Your task to perform on an android device: turn on translation in the chrome app Image 0: 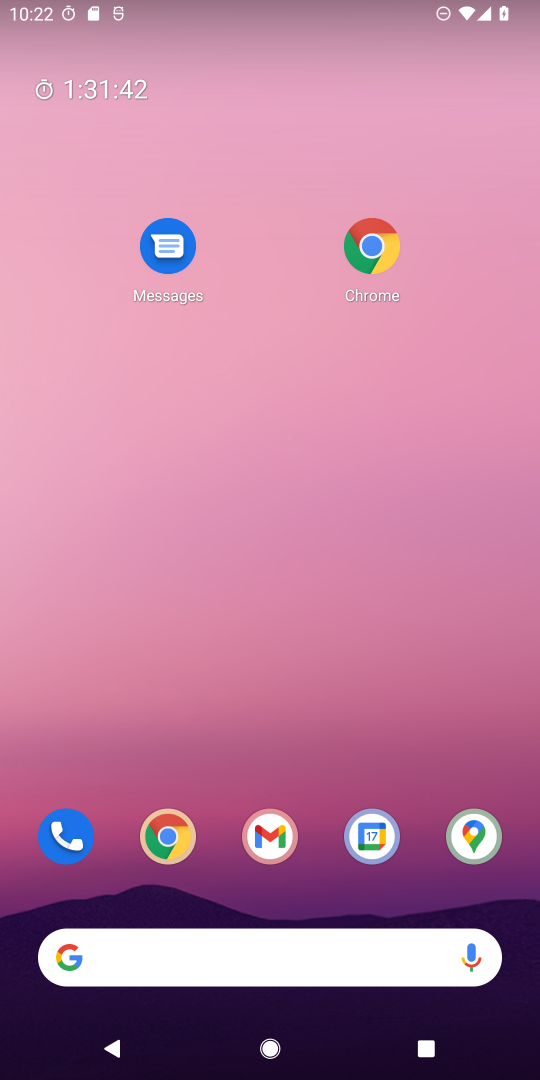
Step 0: drag from (250, 896) to (260, 270)
Your task to perform on an android device: turn on translation in the chrome app Image 1: 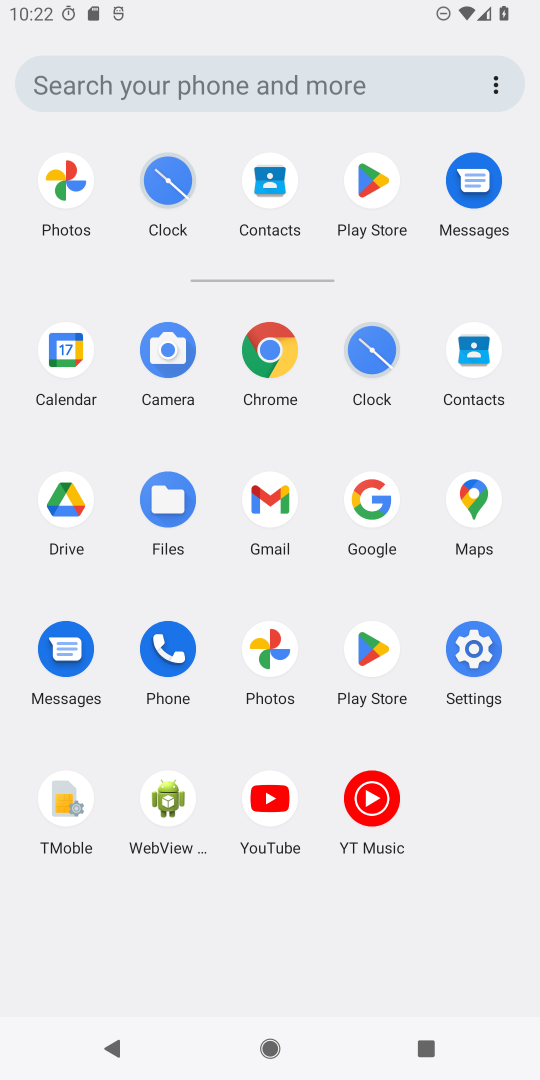
Step 1: click (278, 332)
Your task to perform on an android device: turn on translation in the chrome app Image 2: 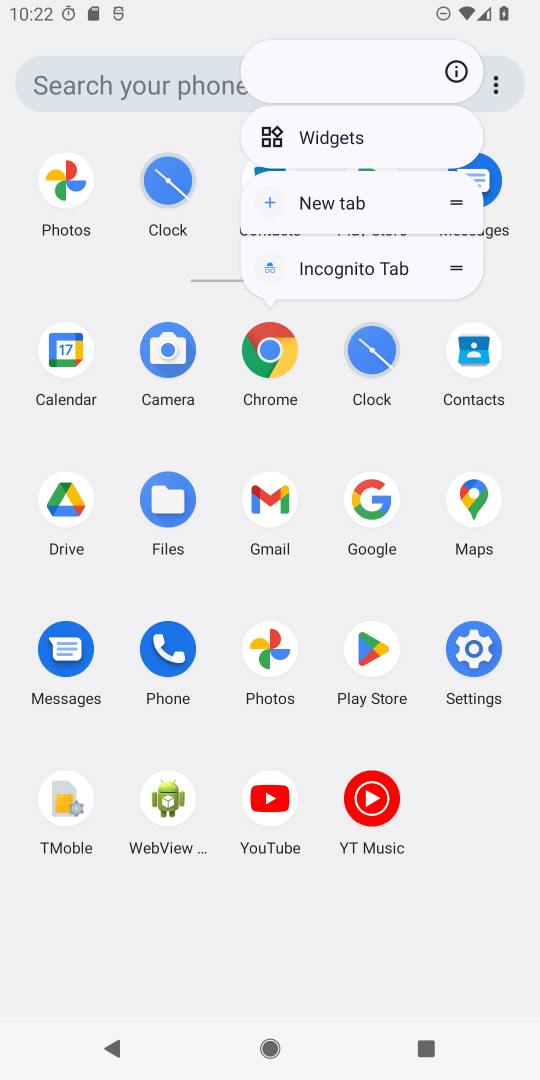
Step 2: click (253, 358)
Your task to perform on an android device: turn on translation in the chrome app Image 3: 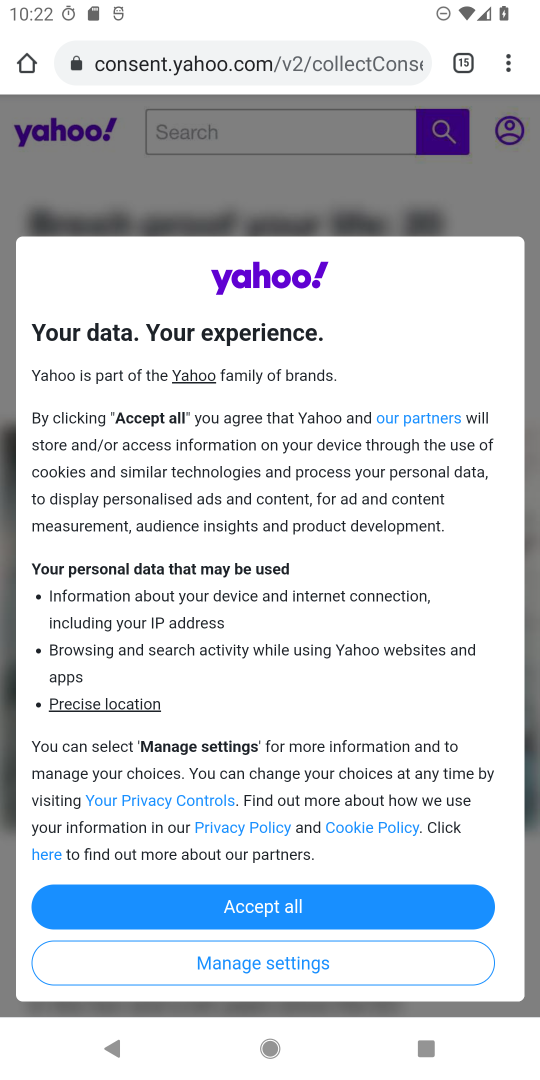
Step 3: click (519, 61)
Your task to perform on an android device: turn on translation in the chrome app Image 4: 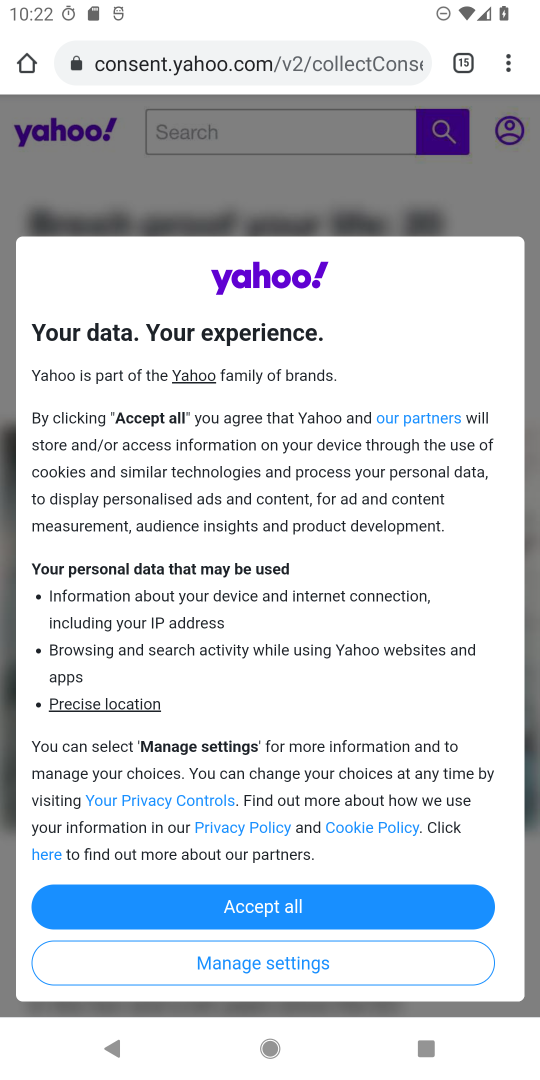
Step 4: click (519, 61)
Your task to perform on an android device: turn on translation in the chrome app Image 5: 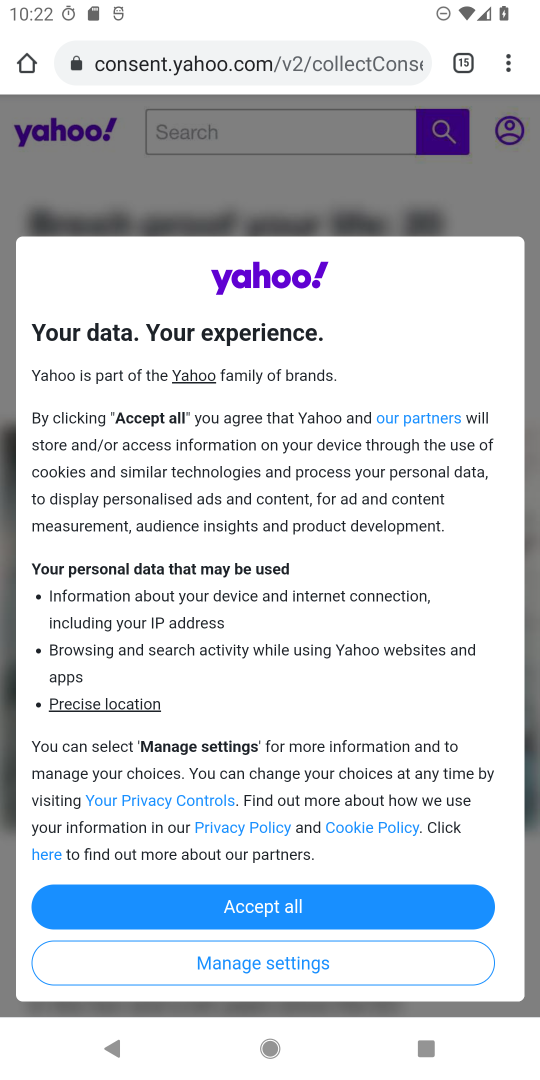
Step 5: click (516, 61)
Your task to perform on an android device: turn on translation in the chrome app Image 6: 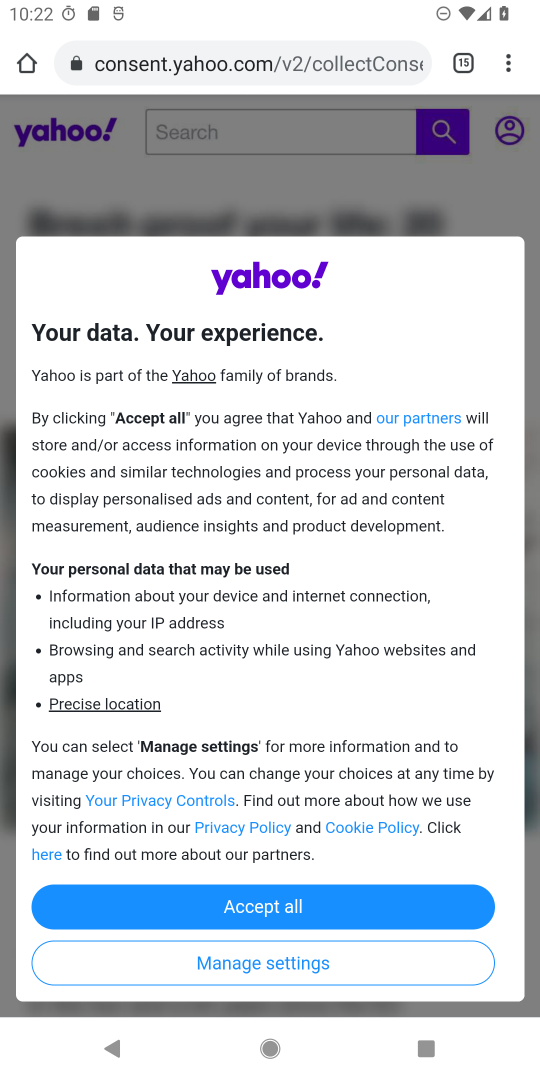
Step 6: click (513, 61)
Your task to perform on an android device: turn on translation in the chrome app Image 7: 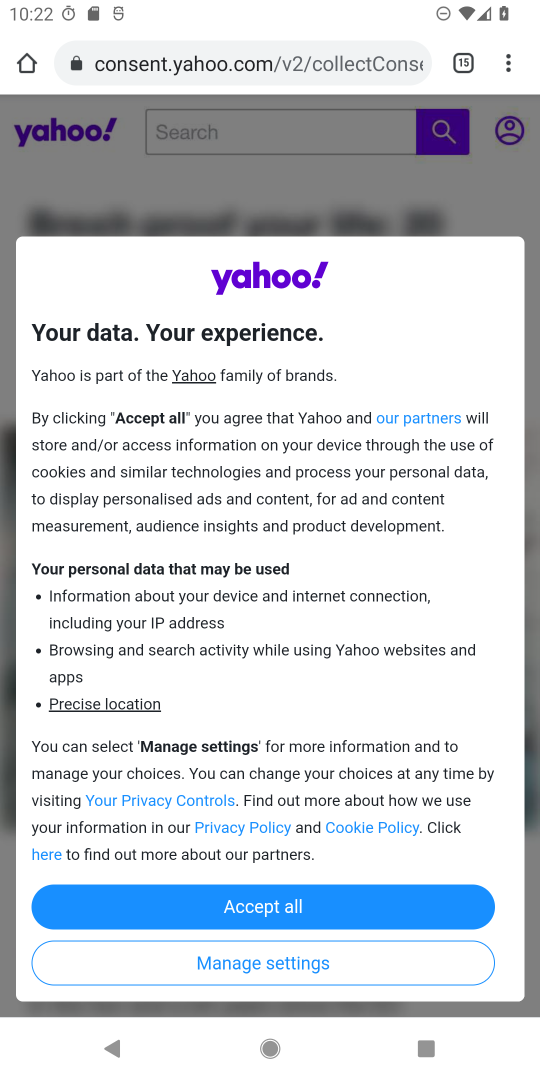
Step 7: click (513, 61)
Your task to perform on an android device: turn on translation in the chrome app Image 8: 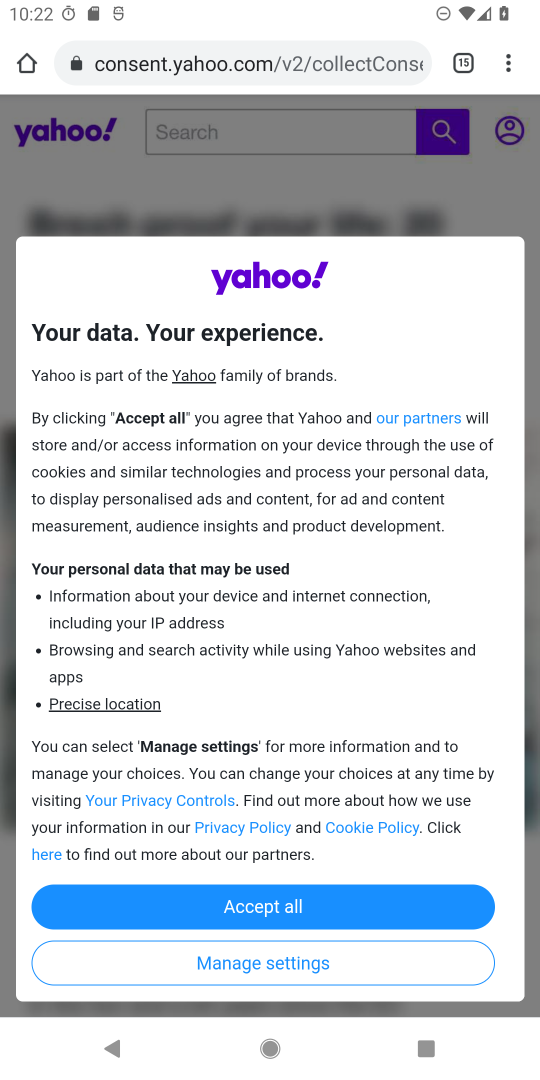
Step 8: click (508, 63)
Your task to perform on an android device: turn on translation in the chrome app Image 9: 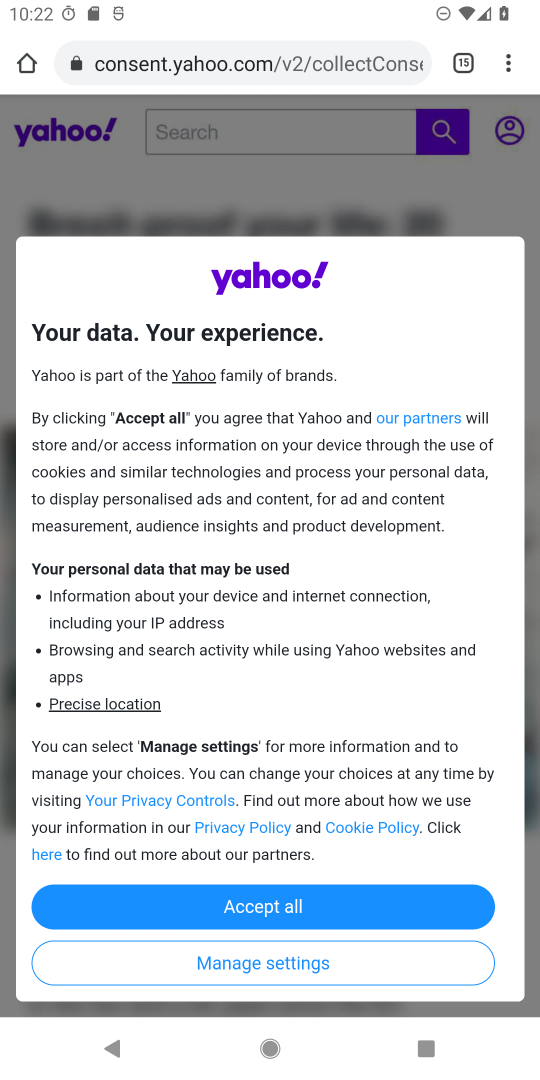
Step 9: click (508, 63)
Your task to perform on an android device: turn on translation in the chrome app Image 10: 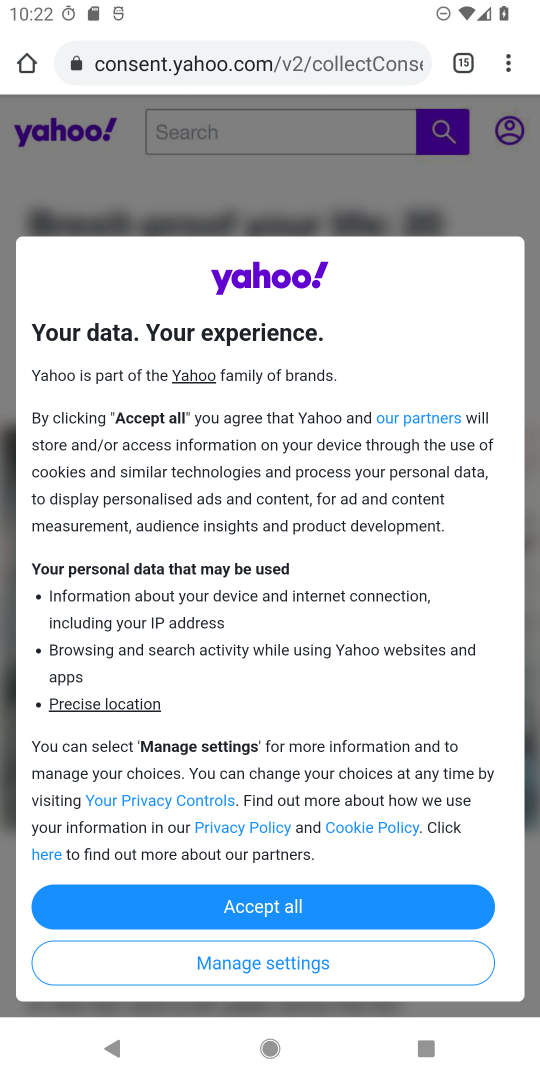
Step 10: click (508, 63)
Your task to perform on an android device: turn on translation in the chrome app Image 11: 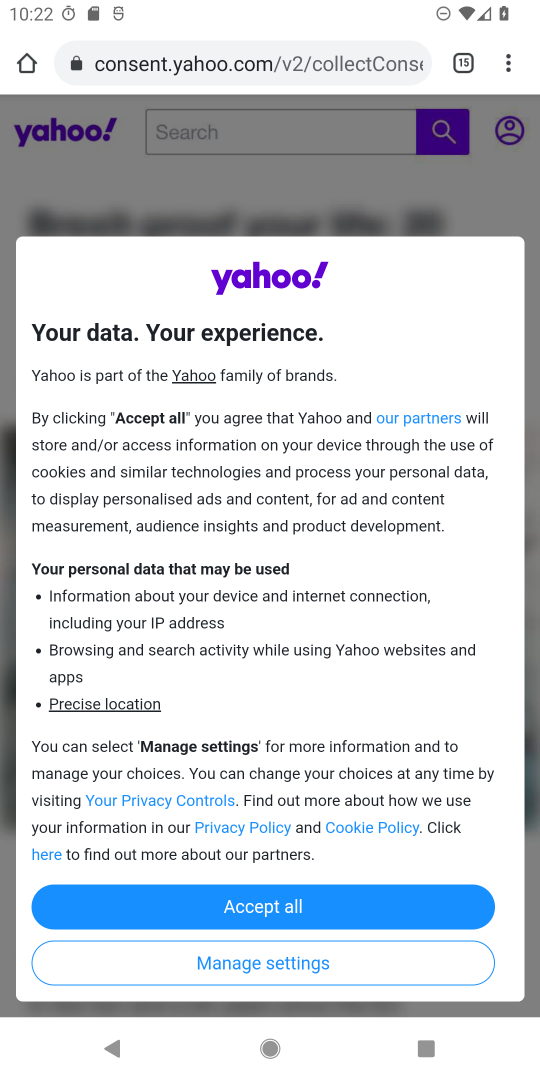
Step 11: click (508, 63)
Your task to perform on an android device: turn on translation in the chrome app Image 12: 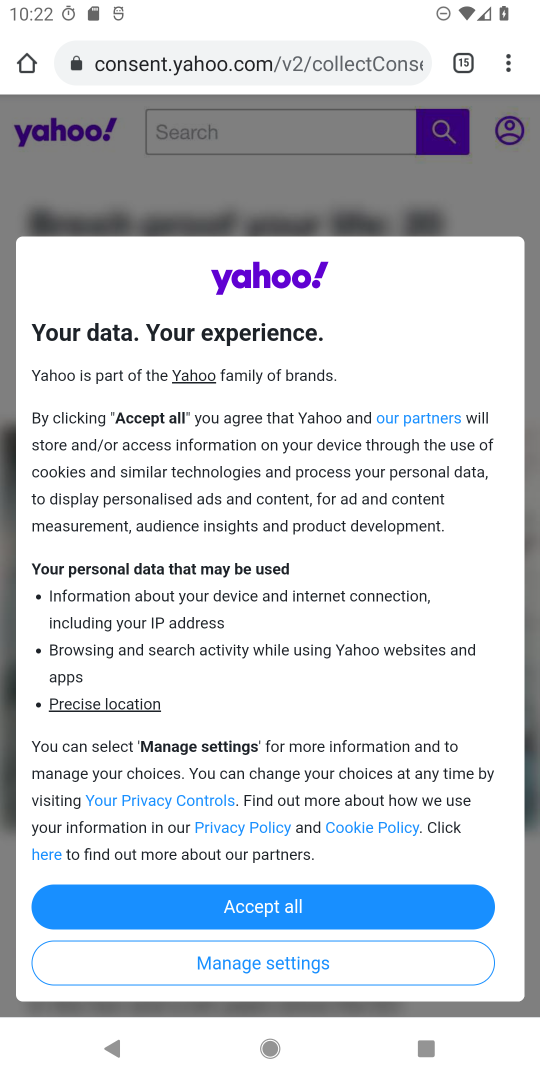
Step 12: click (508, 63)
Your task to perform on an android device: turn on translation in the chrome app Image 13: 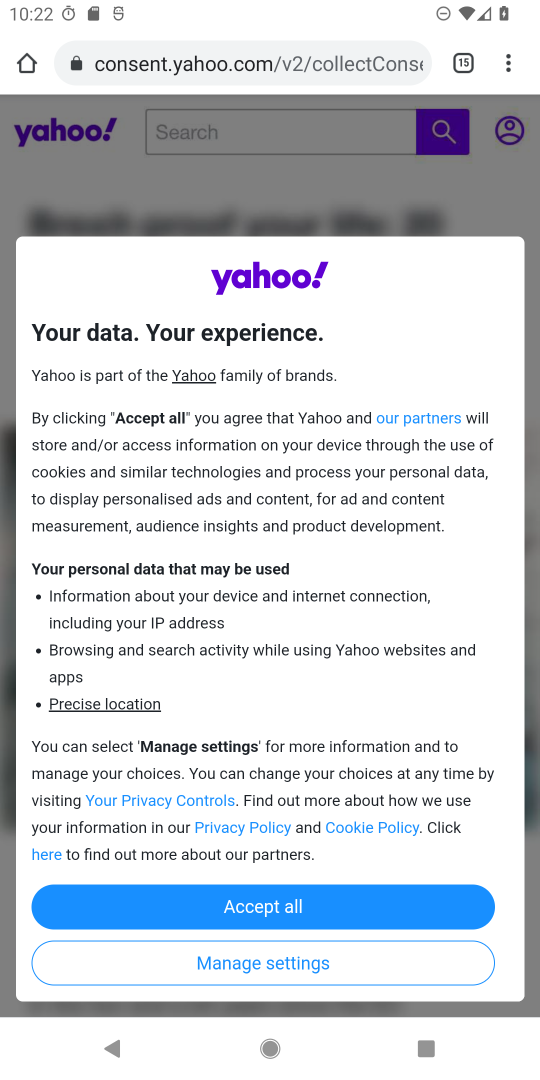
Step 13: click (508, 63)
Your task to perform on an android device: turn on translation in the chrome app Image 14: 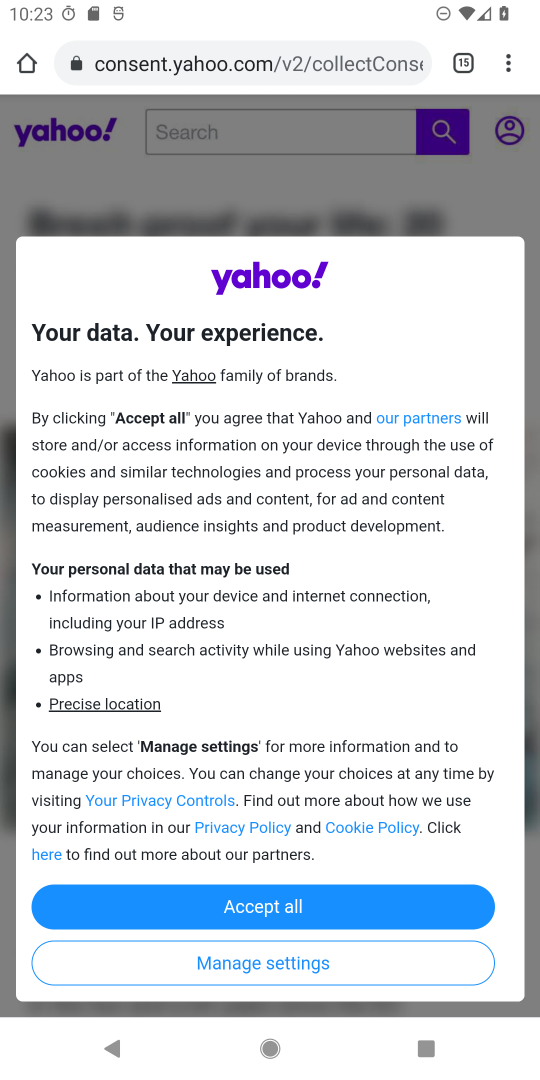
Step 14: click (508, 63)
Your task to perform on an android device: turn on translation in the chrome app Image 15: 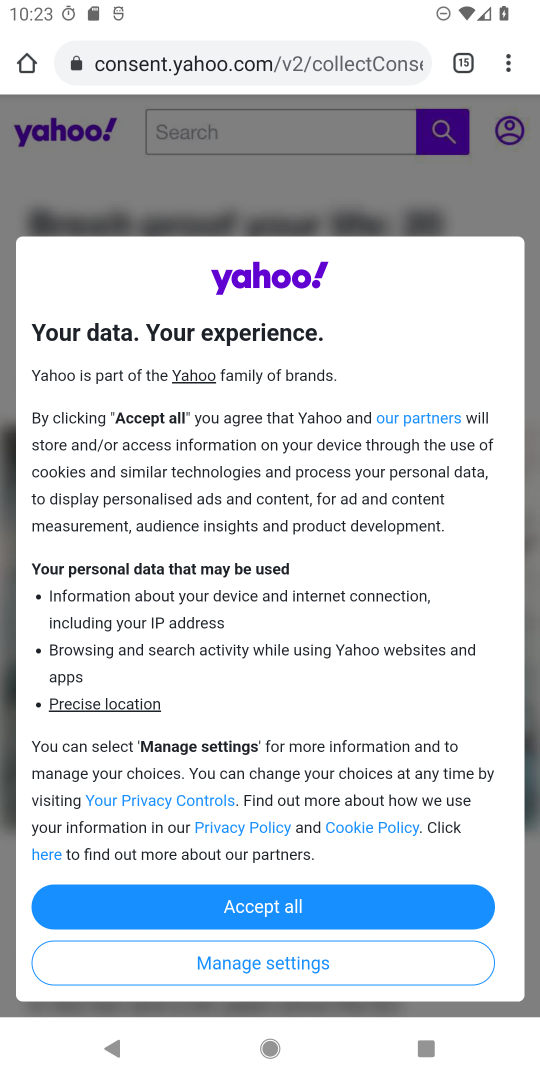
Step 15: click (508, 63)
Your task to perform on an android device: turn on translation in the chrome app Image 16: 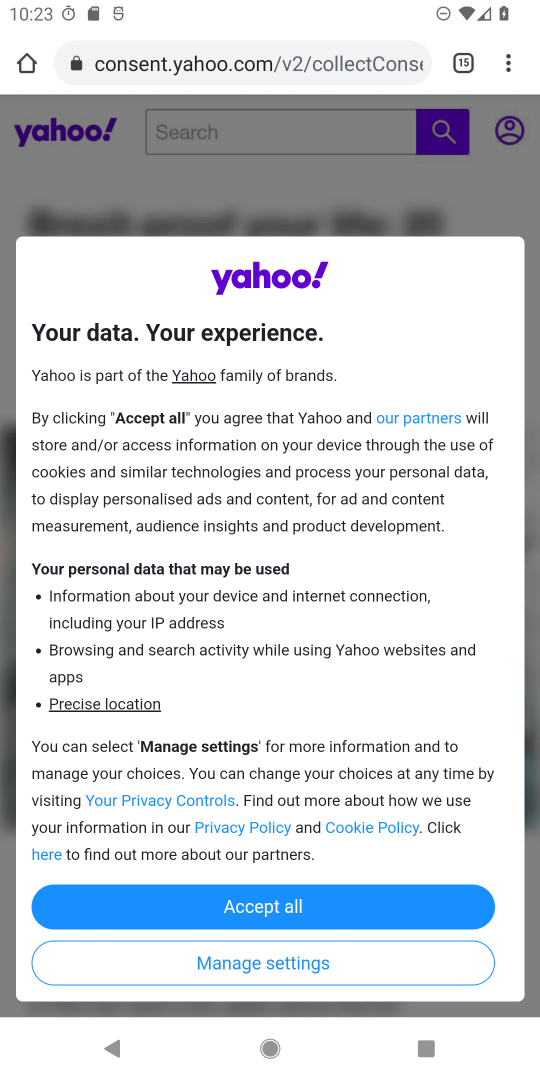
Step 16: click (499, 47)
Your task to perform on an android device: turn on translation in the chrome app Image 17: 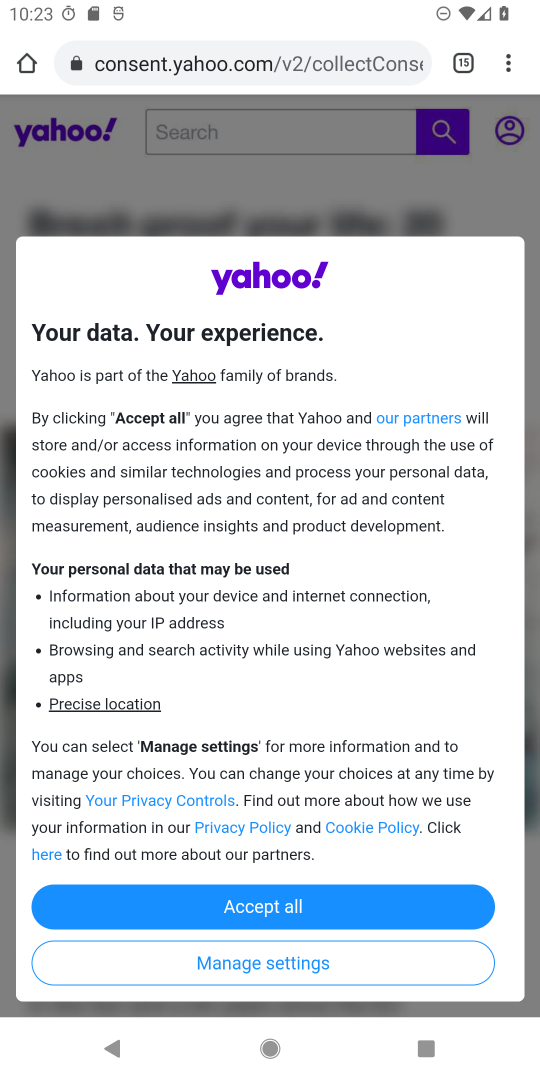
Step 17: click (505, 62)
Your task to perform on an android device: turn on translation in the chrome app Image 18: 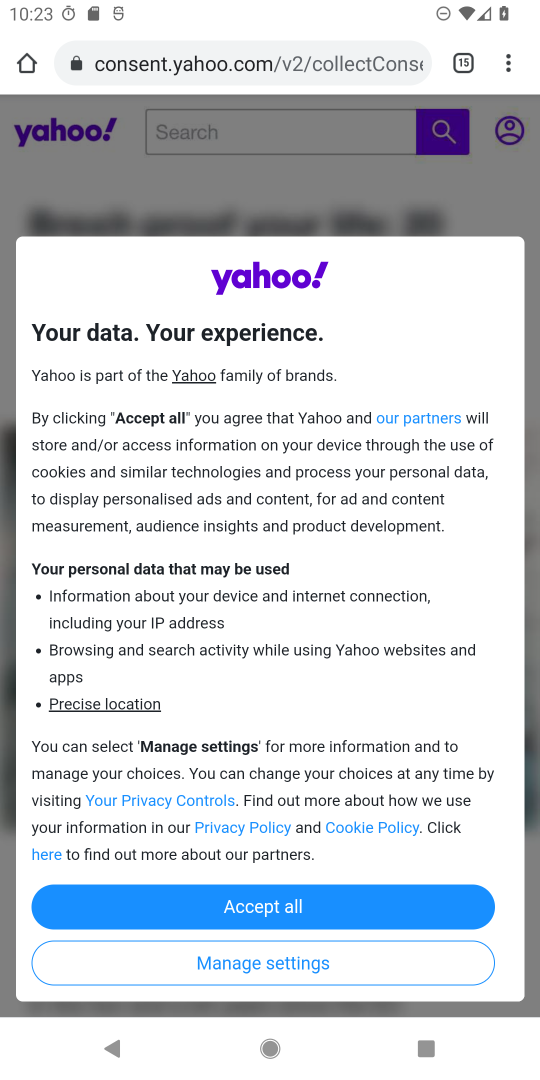
Step 18: click (505, 62)
Your task to perform on an android device: turn on translation in the chrome app Image 19: 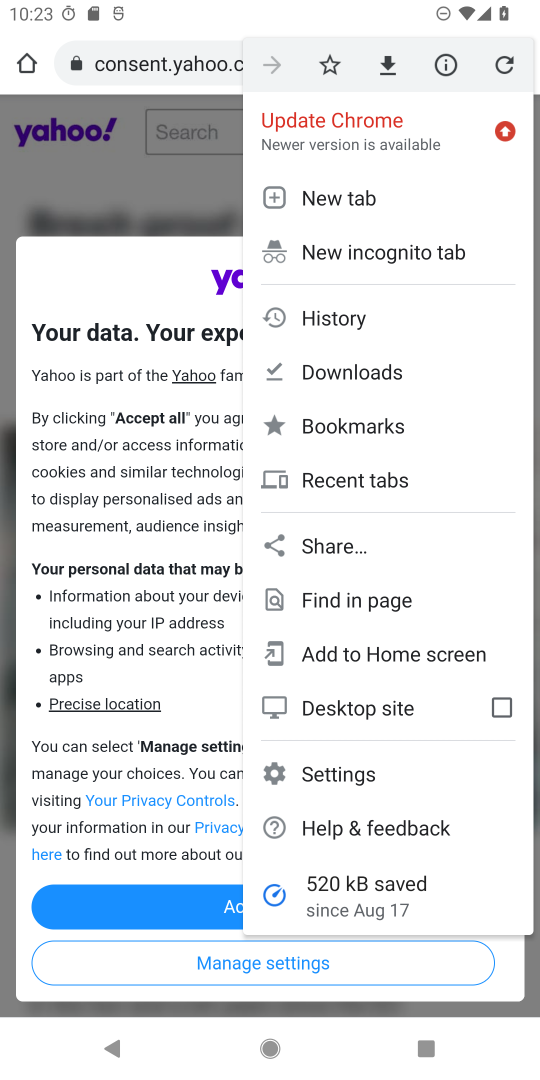
Step 19: click (340, 777)
Your task to perform on an android device: turn on translation in the chrome app Image 20: 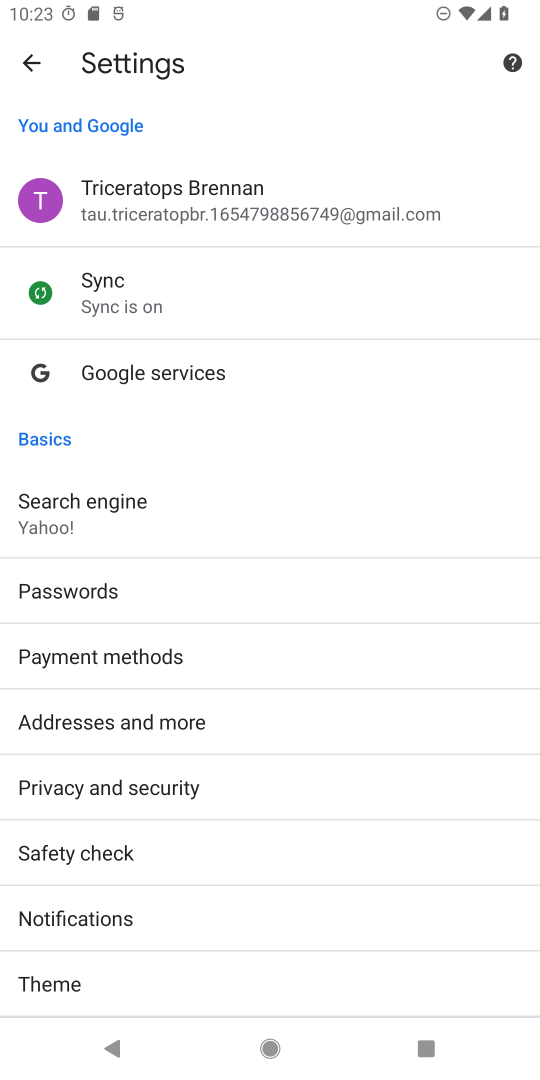
Step 20: drag from (136, 910) to (177, 517)
Your task to perform on an android device: turn on translation in the chrome app Image 21: 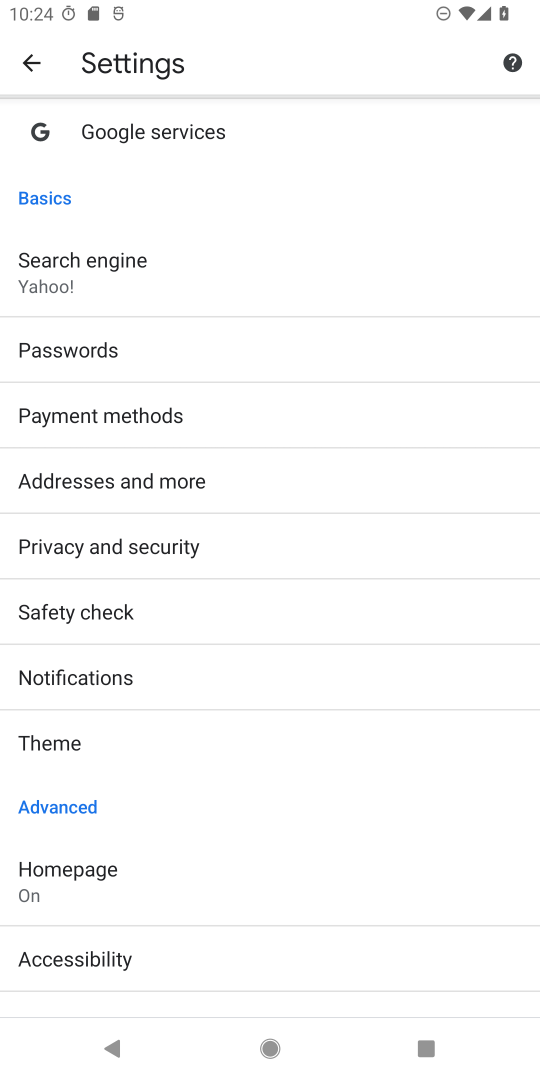
Step 21: drag from (181, 791) to (316, 88)
Your task to perform on an android device: turn on translation in the chrome app Image 22: 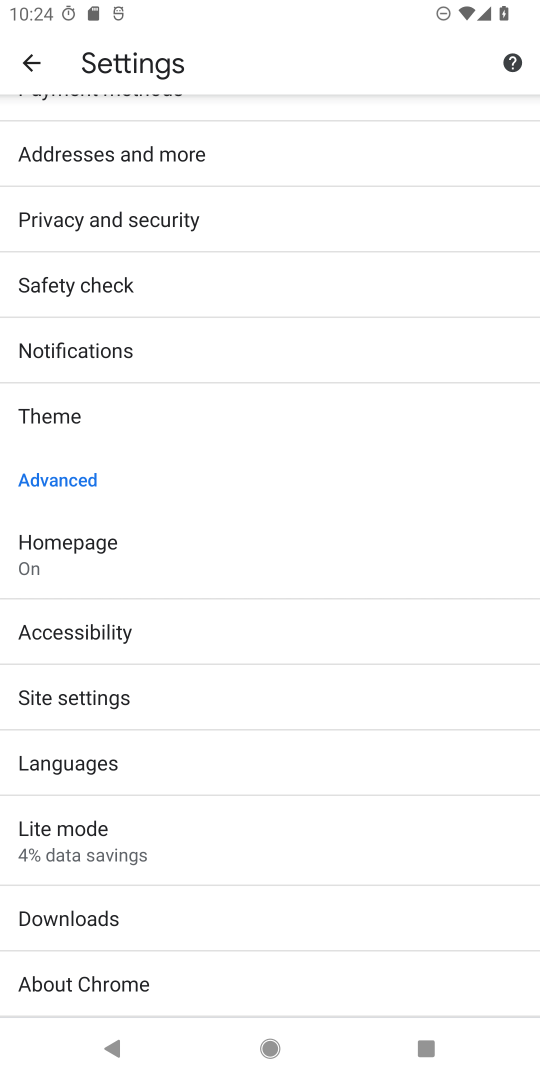
Step 22: click (122, 768)
Your task to perform on an android device: turn on translation in the chrome app Image 23: 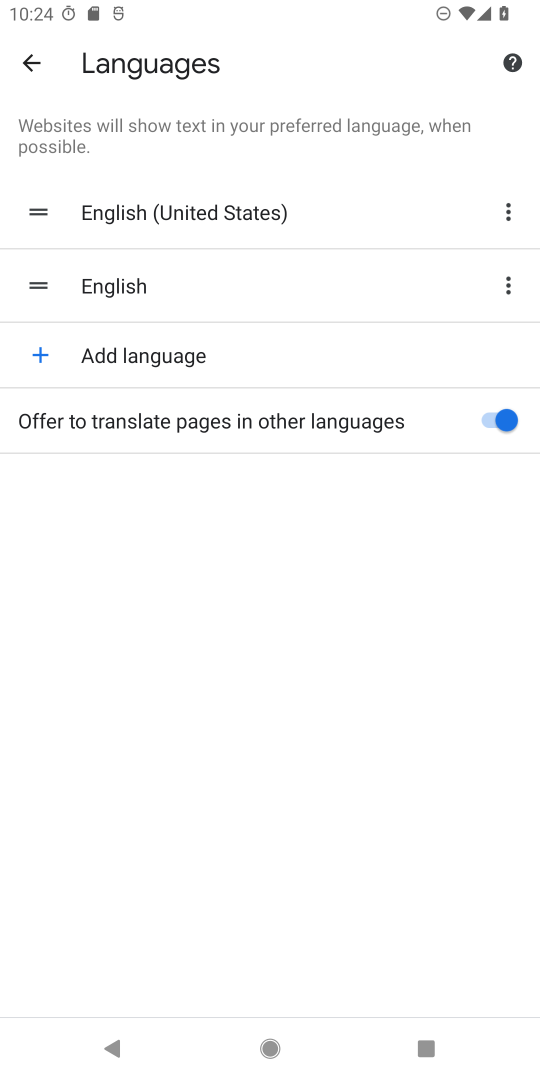
Step 23: task complete